Your task to perform on an android device: Open wifi settings Image 0: 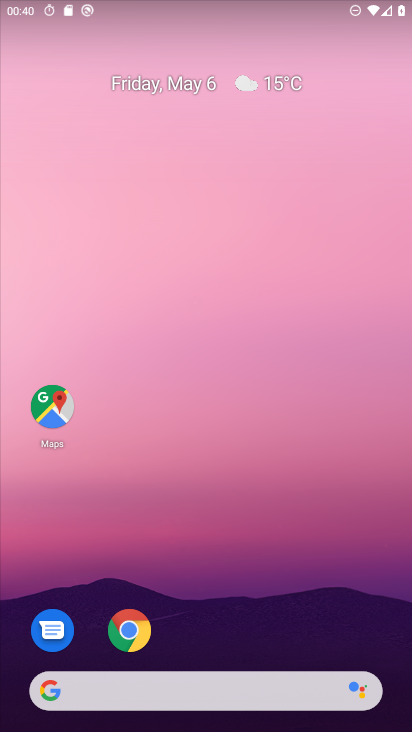
Step 0: drag from (260, 593) to (263, 302)
Your task to perform on an android device: Open wifi settings Image 1: 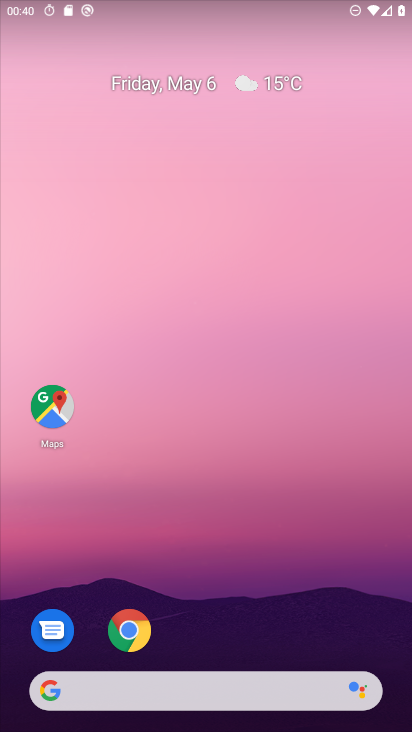
Step 1: drag from (317, 476) to (255, 174)
Your task to perform on an android device: Open wifi settings Image 2: 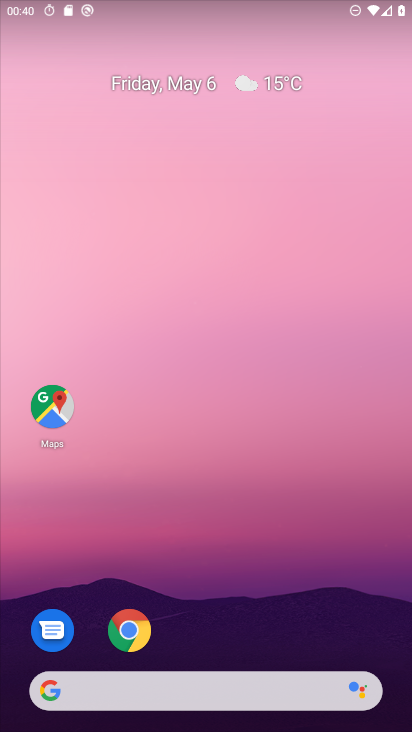
Step 2: drag from (286, 583) to (307, 92)
Your task to perform on an android device: Open wifi settings Image 3: 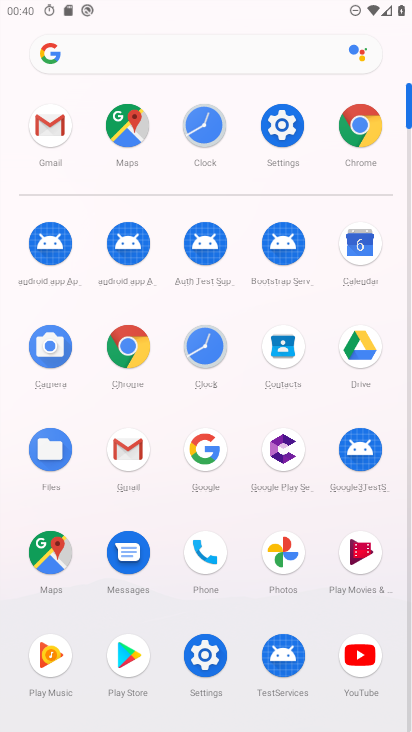
Step 3: click (291, 125)
Your task to perform on an android device: Open wifi settings Image 4: 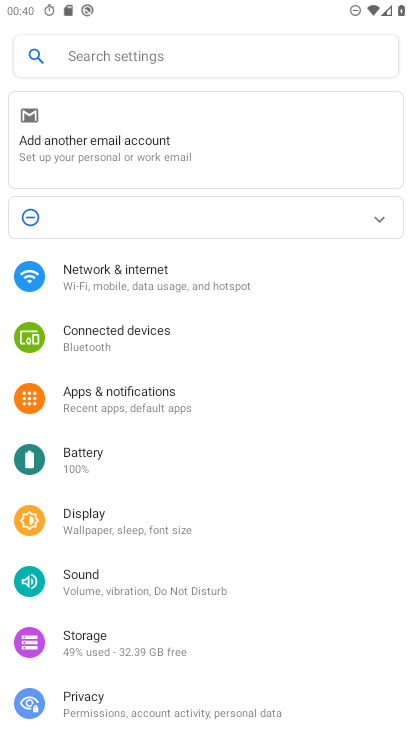
Step 4: click (209, 277)
Your task to perform on an android device: Open wifi settings Image 5: 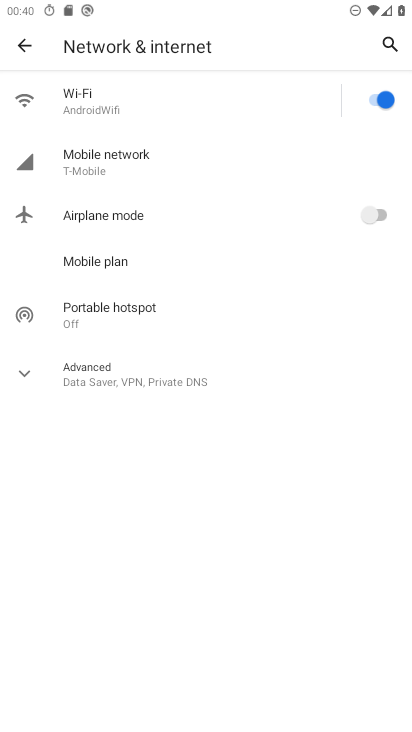
Step 5: click (280, 93)
Your task to perform on an android device: Open wifi settings Image 6: 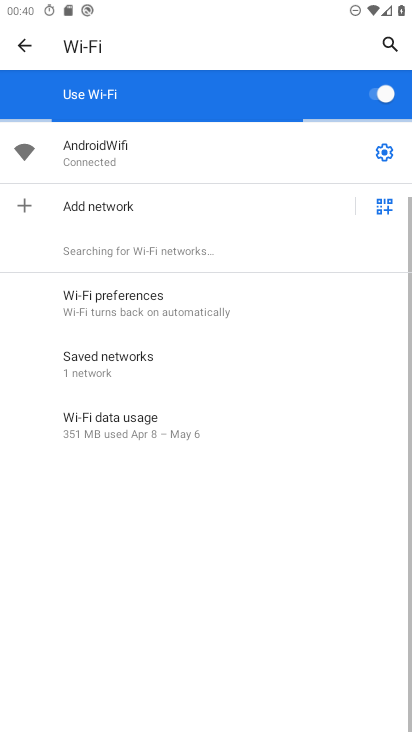
Step 6: click (380, 156)
Your task to perform on an android device: Open wifi settings Image 7: 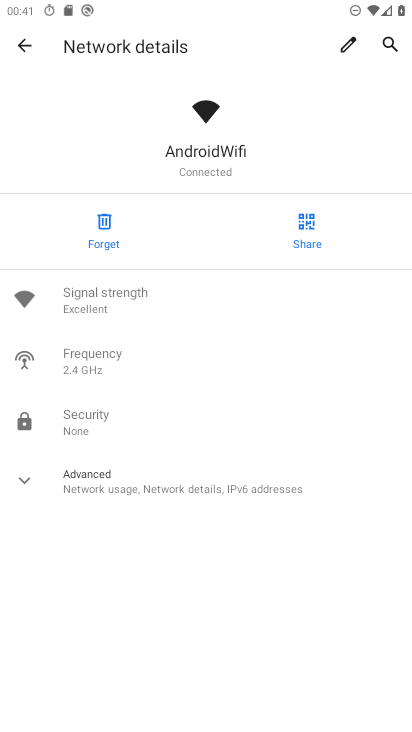
Step 7: task complete